Your task to perform on an android device: Open the stopwatch Image 0: 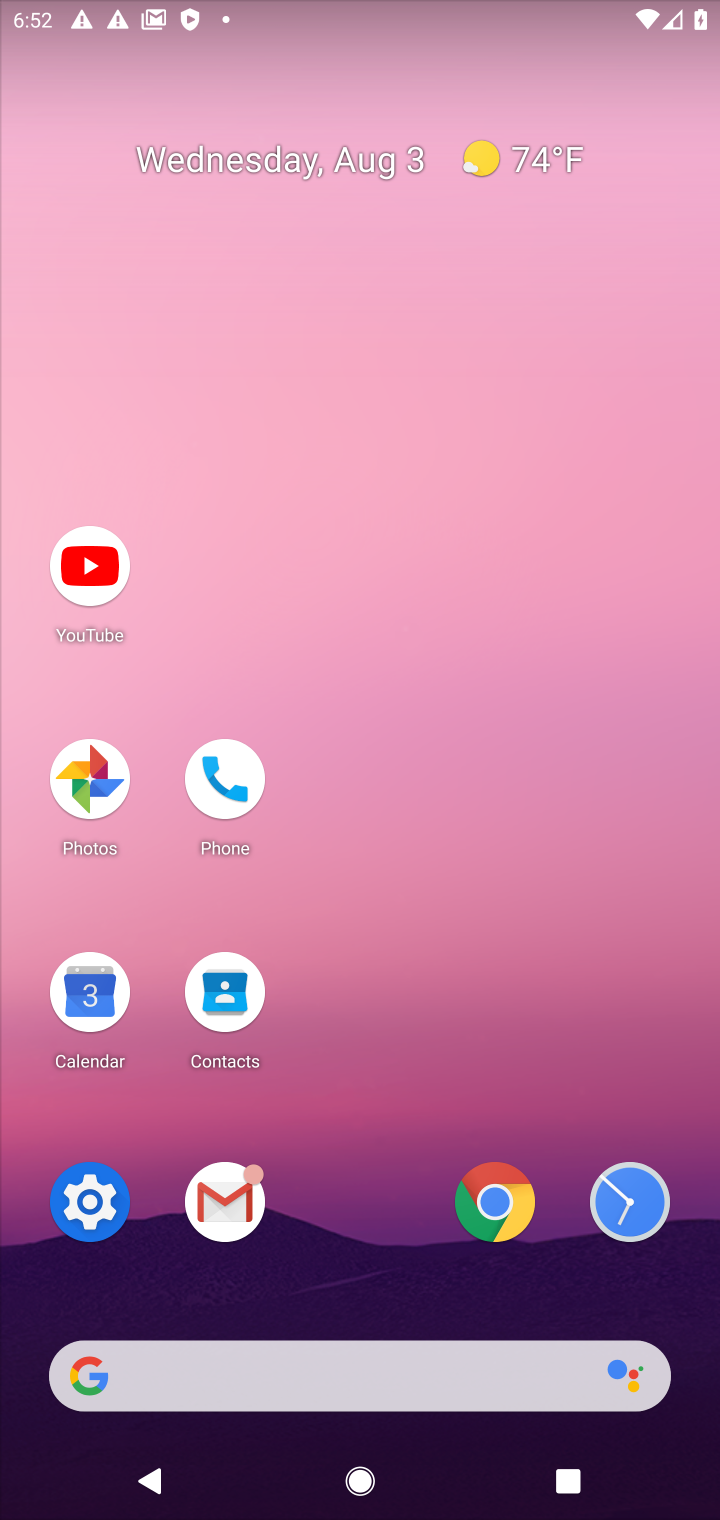
Step 0: click (626, 1205)
Your task to perform on an android device: Open the stopwatch Image 1: 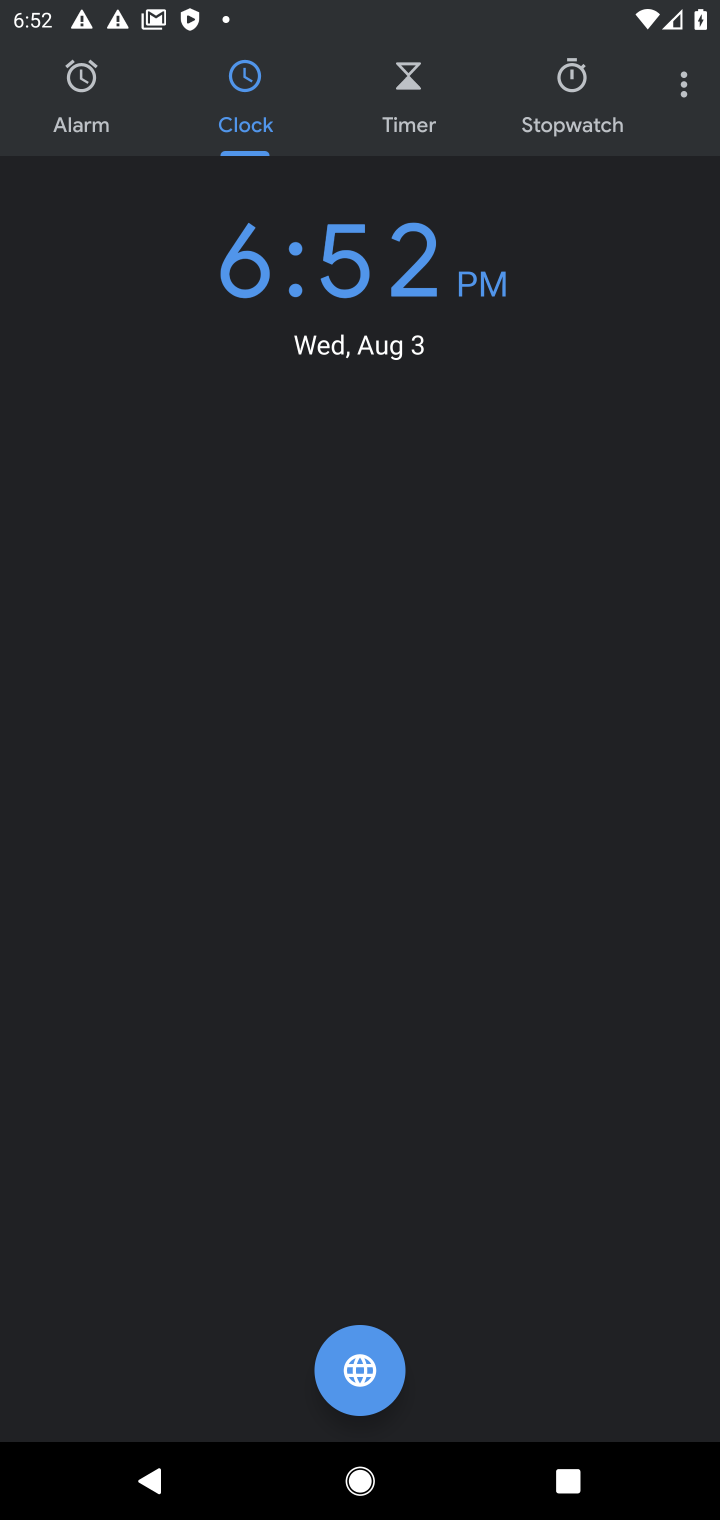
Step 1: click (581, 75)
Your task to perform on an android device: Open the stopwatch Image 2: 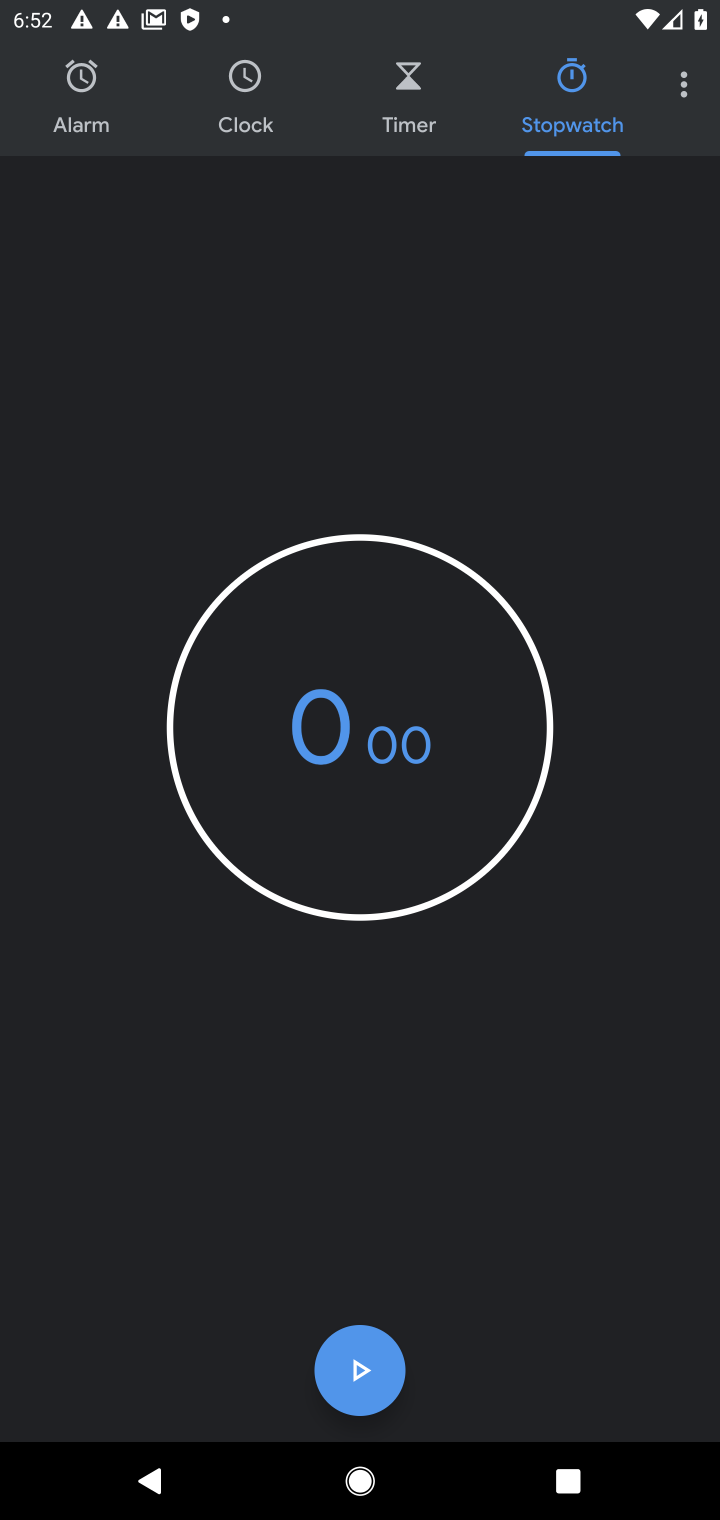
Step 2: task complete